Your task to perform on an android device: Is it going to rain this weekend? Image 0: 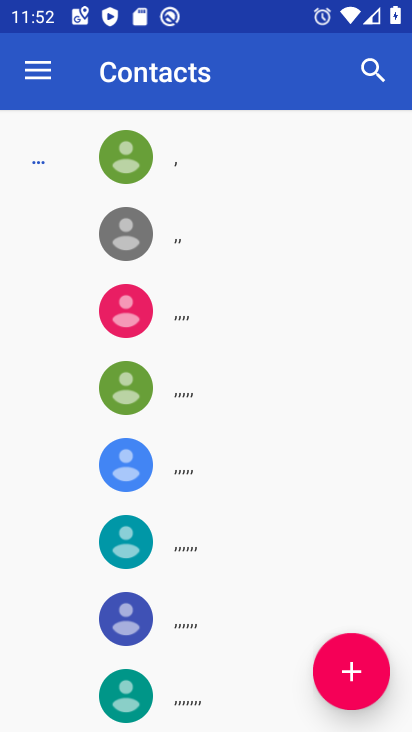
Step 0: click (270, 567)
Your task to perform on an android device: Is it going to rain this weekend? Image 1: 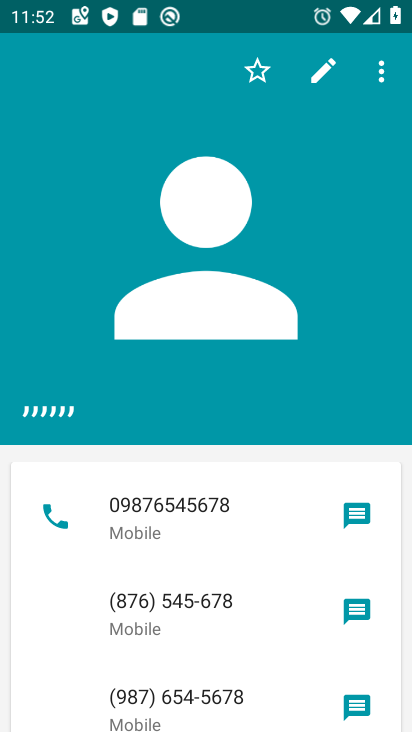
Step 1: press home button
Your task to perform on an android device: Is it going to rain this weekend? Image 2: 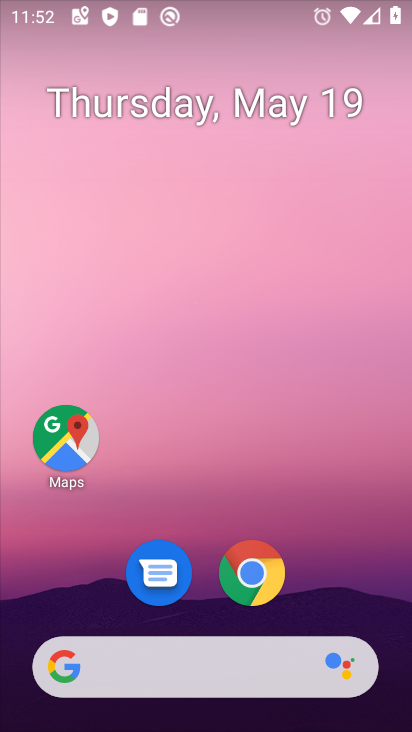
Step 2: click (198, 651)
Your task to perform on an android device: Is it going to rain this weekend? Image 3: 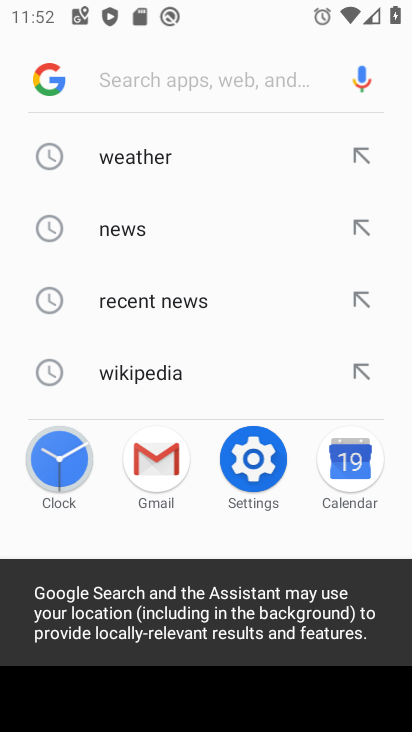
Step 3: click (154, 155)
Your task to perform on an android device: Is it going to rain this weekend? Image 4: 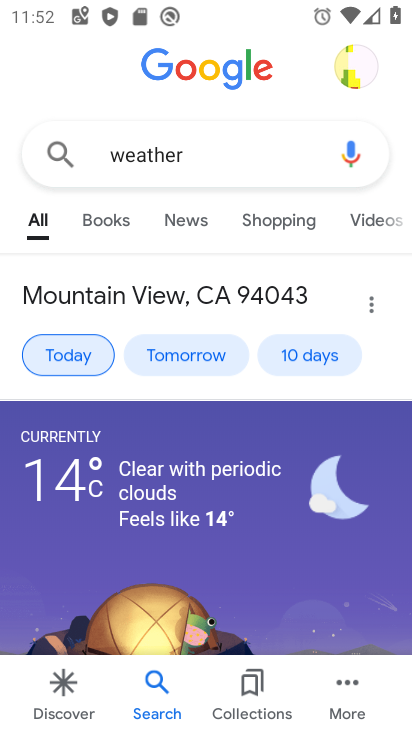
Step 4: task complete